Your task to perform on an android device: When is my next meeting? Image 0: 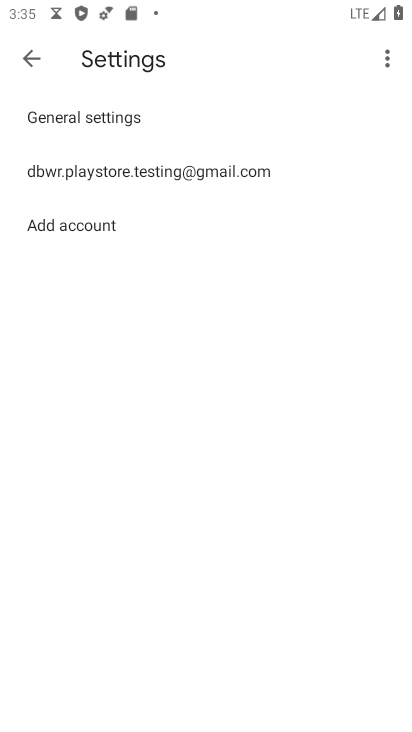
Step 0: press home button
Your task to perform on an android device: When is my next meeting? Image 1: 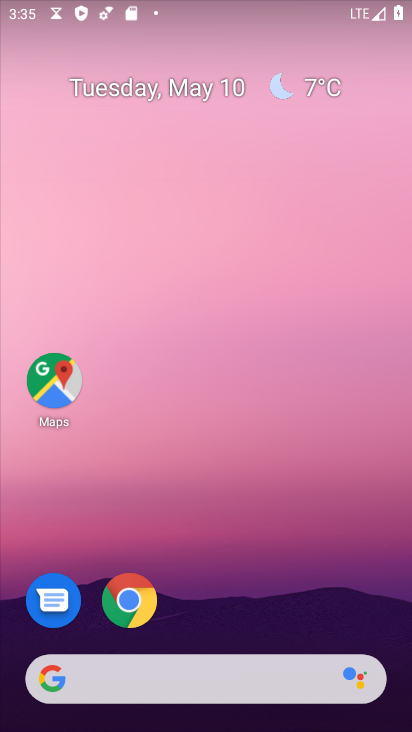
Step 1: drag from (303, 553) to (324, 356)
Your task to perform on an android device: When is my next meeting? Image 2: 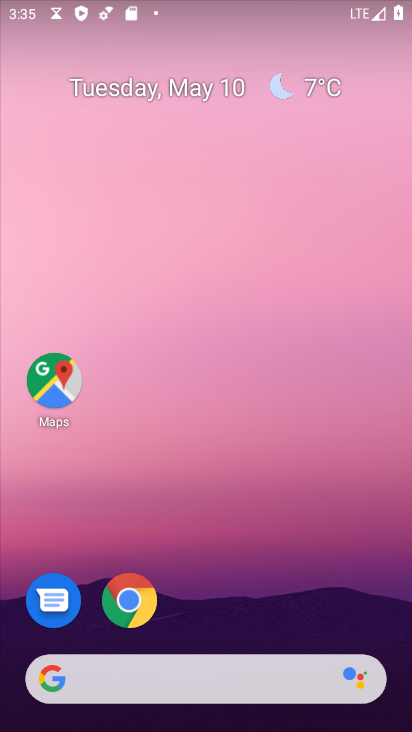
Step 2: drag from (250, 495) to (262, 119)
Your task to perform on an android device: When is my next meeting? Image 3: 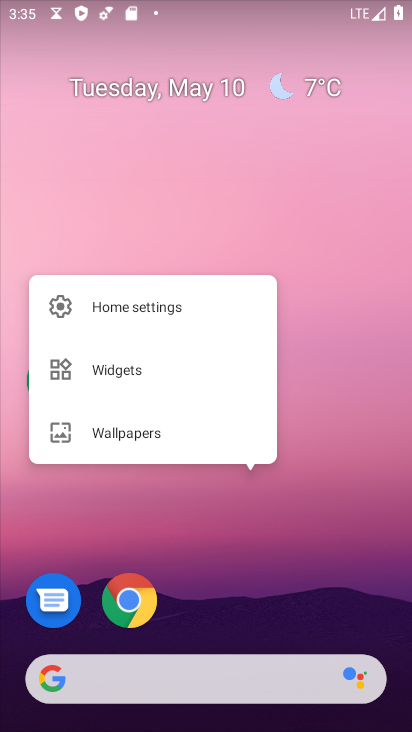
Step 3: click (255, 524)
Your task to perform on an android device: When is my next meeting? Image 4: 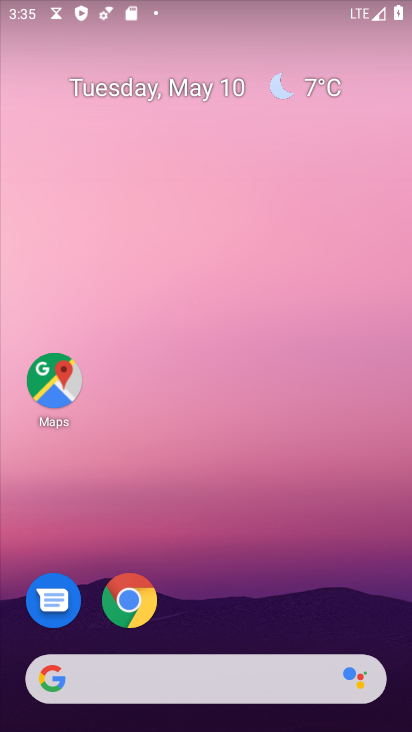
Step 4: drag from (298, 604) to (313, 6)
Your task to perform on an android device: When is my next meeting? Image 5: 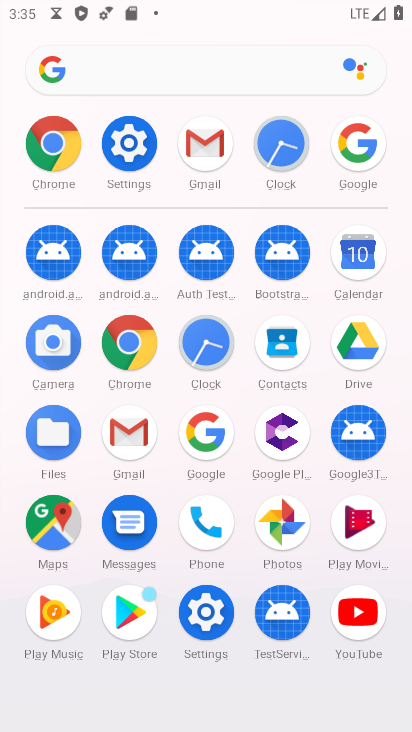
Step 5: drag from (185, 572) to (198, 306)
Your task to perform on an android device: When is my next meeting? Image 6: 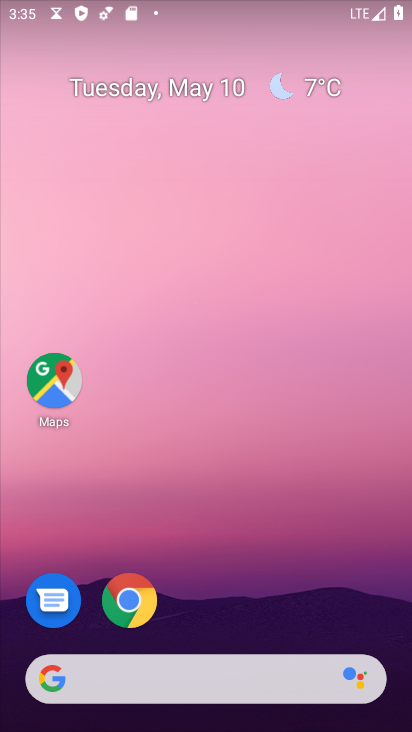
Step 6: drag from (195, 533) to (186, 169)
Your task to perform on an android device: When is my next meeting? Image 7: 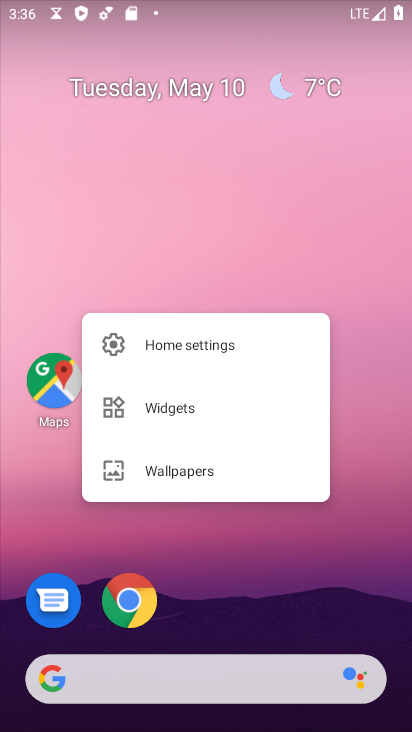
Step 7: click (316, 253)
Your task to perform on an android device: When is my next meeting? Image 8: 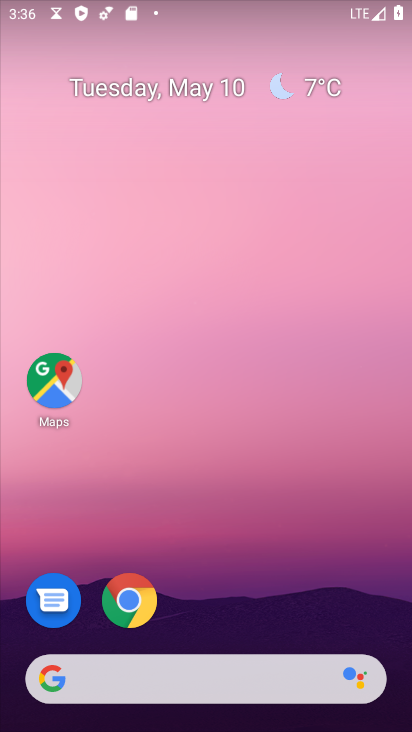
Step 8: drag from (229, 608) to (176, 79)
Your task to perform on an android device: When is my next meeting? Image 9: 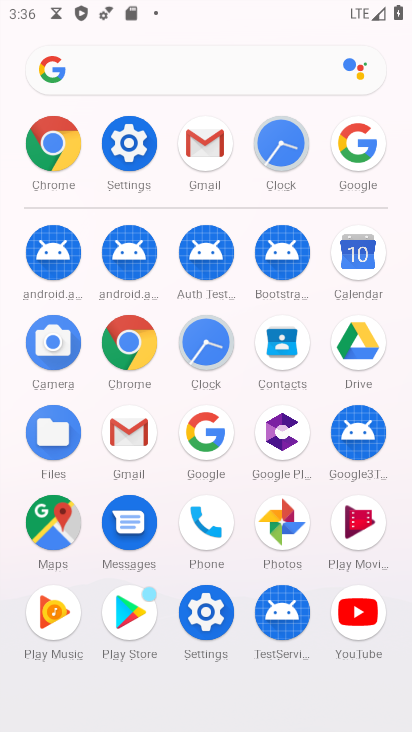
Step 9: drag from (266, 673) to (173, 5)
Your task to perform on an android device: When is my next meeting? Image 10: 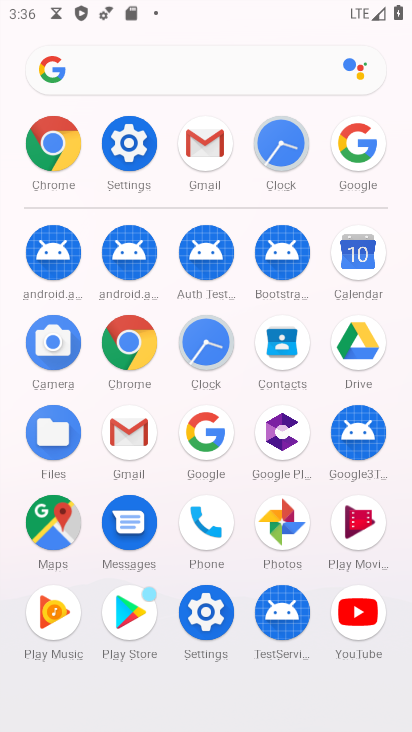
Step 10: drag from (146, 144) to (182, 593)
Your task to perform on an android device: When is my next meeting? Image 11: 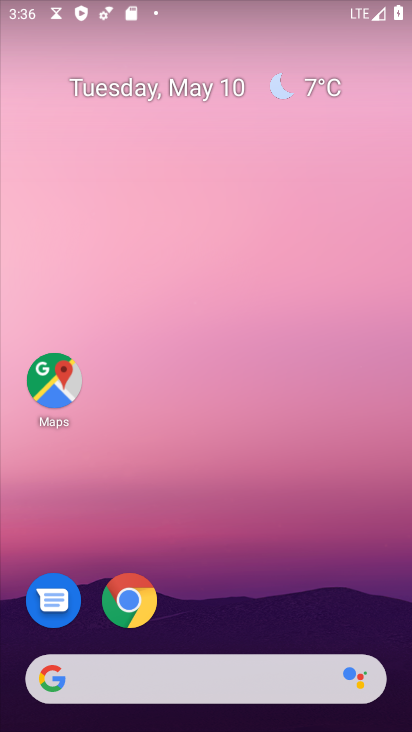
Step 11: drag from (231, 578) to (203, 70)
Your task to perform on an android device: When is my next meeting? Image 12: 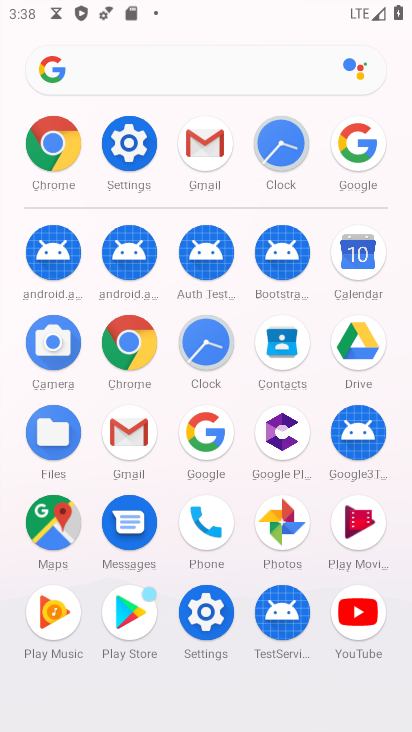
Step 12: click (371, 243)
Your task to perform on an android device: When is my next meeting? Image 13: 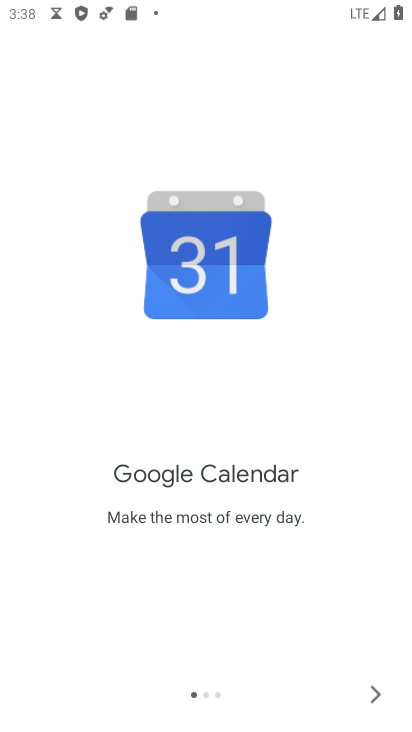
Step 13: click (360, 679)
Your task to perform on an android device: When is my next meeting? Image 14: 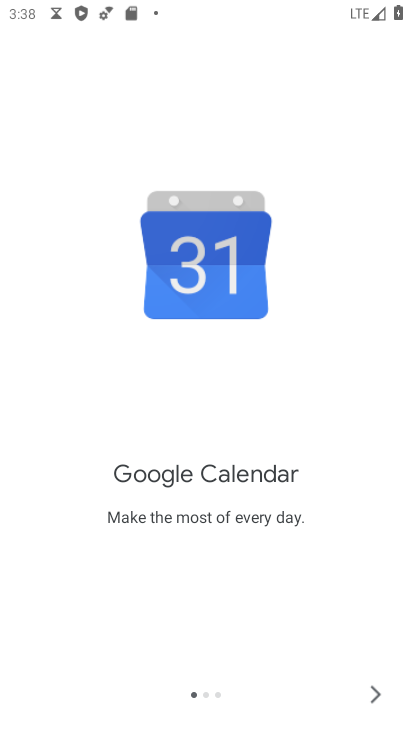
Step 14: click (361, 679)
Your task to perform on an android device: When is my next meeting? Image 15: 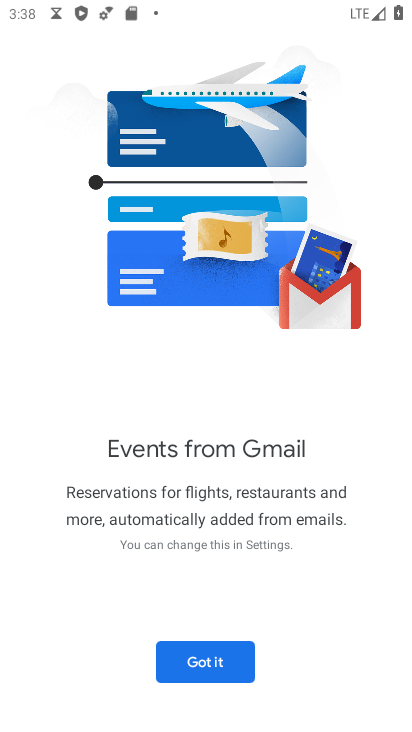
Step 15: click (172, 675)
Your task to perform on an android device: When is my next meeting? Image 16: 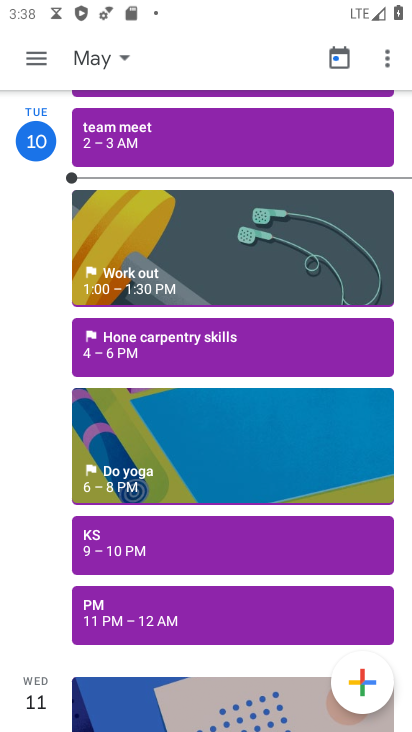
Step 16: task complete